Your task to perform on an android device: Turn off the flashlight Image 0: 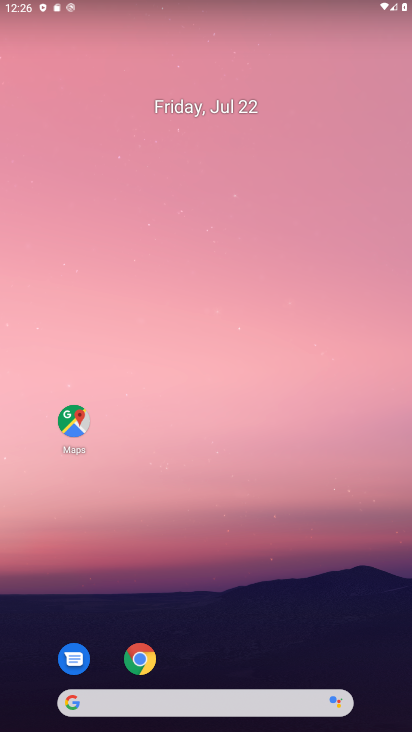
Step 0: click (303, 618)
Your task to perform on an android device: Turn off the flashlight Image 1: 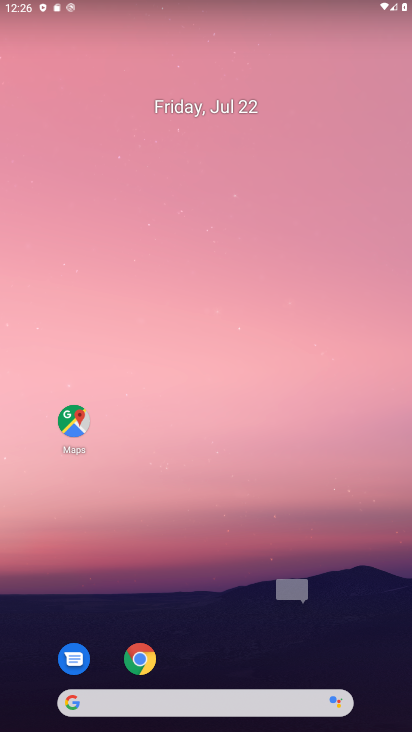
Step 1: task complete